Your task to perform on an android device: Open ESPN.com Image 0: 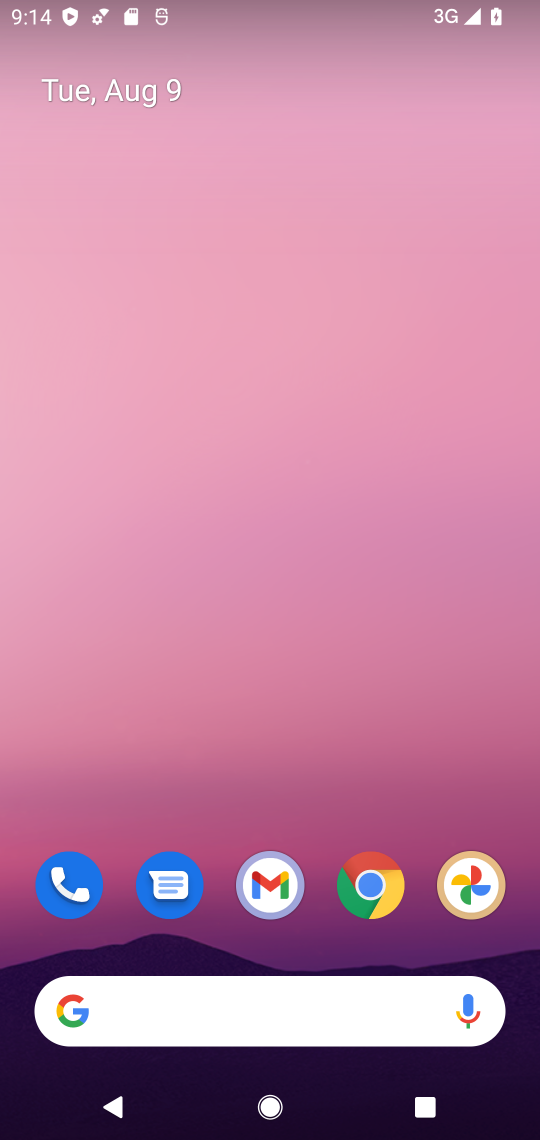
Step 0: press home button
Your task to perform on an android device: Open ESPN.com Image 1: 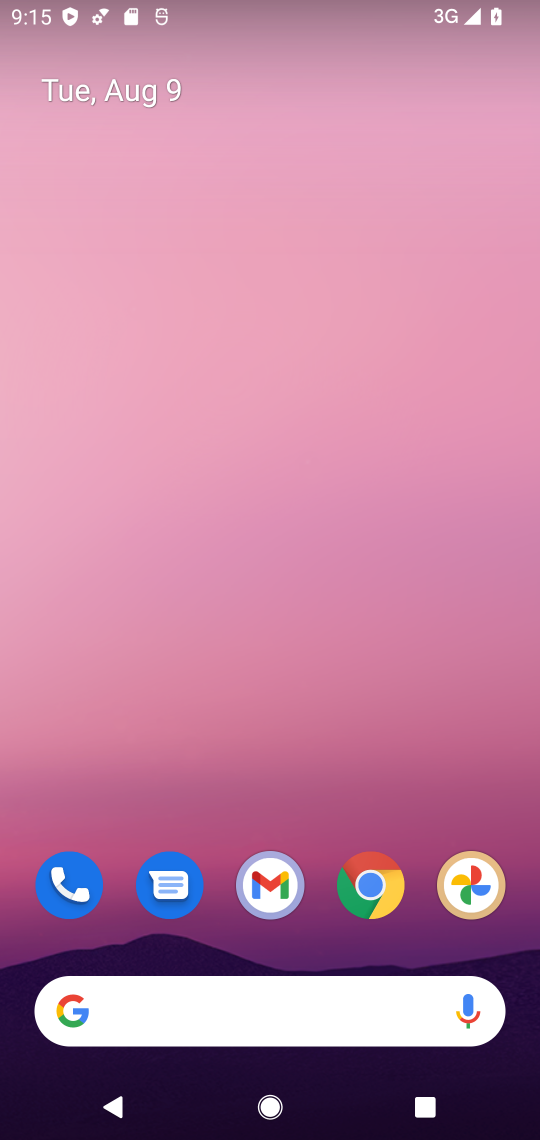
Step 1: click (360, 874)
Your task to perform on an android device: Open ESPN.com Image 2: 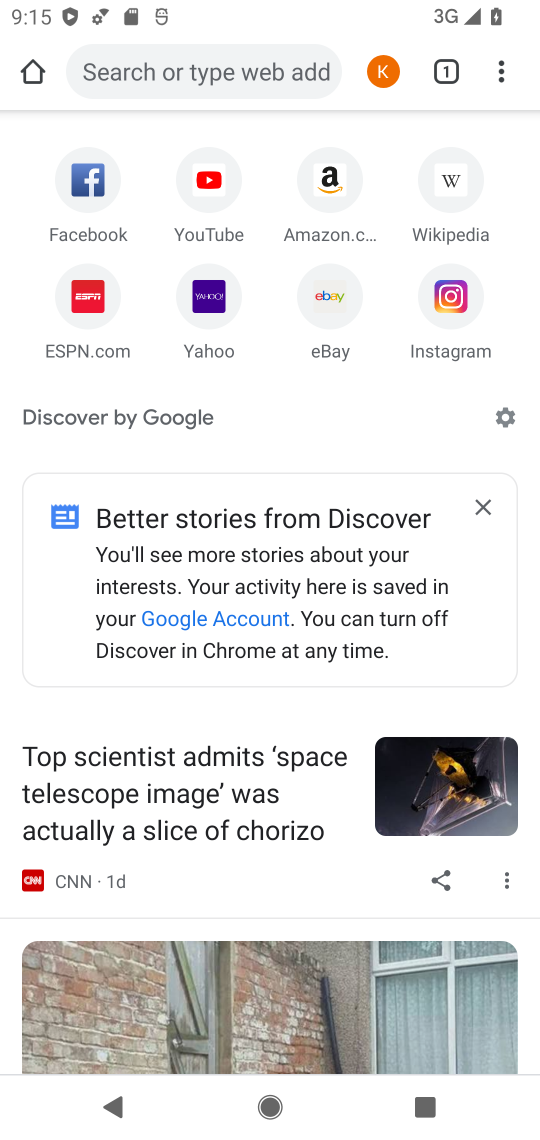
Step 2: click (85, 305)
Your task to perform on an android device: Open ESPN.com Image 3: 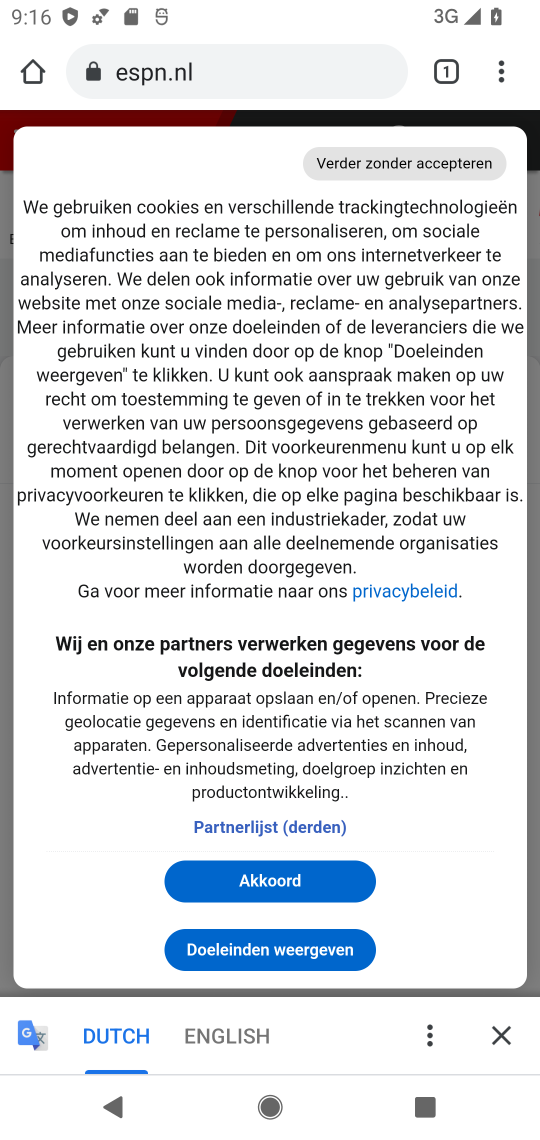
Step 3: click (285, 869)
Your task to perform on an android device: Open ESPN.com Image 4: 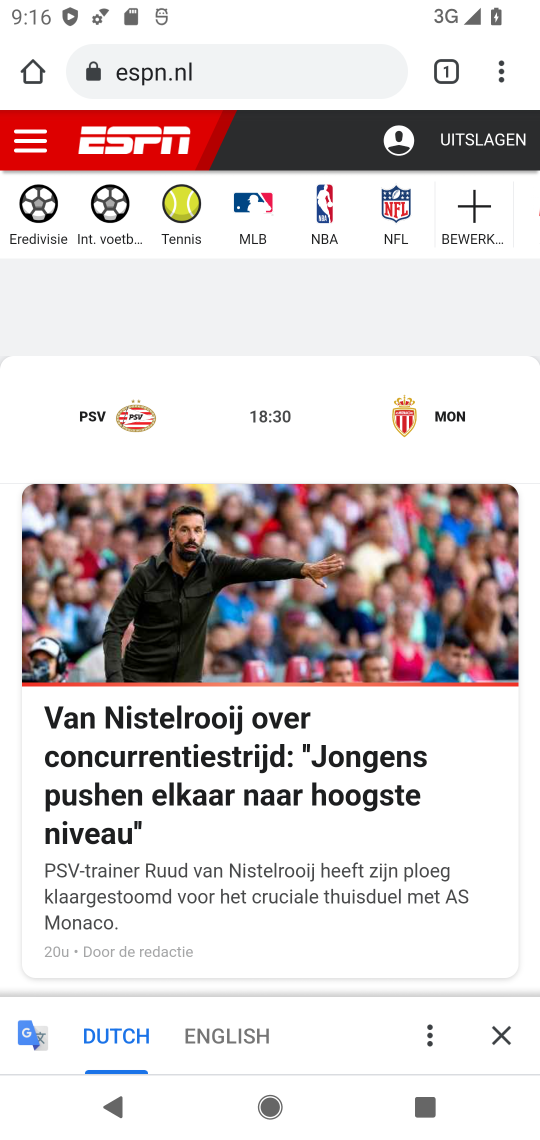
Step 4: task complete